Your task to perform on an android device: Check the news Image 0: 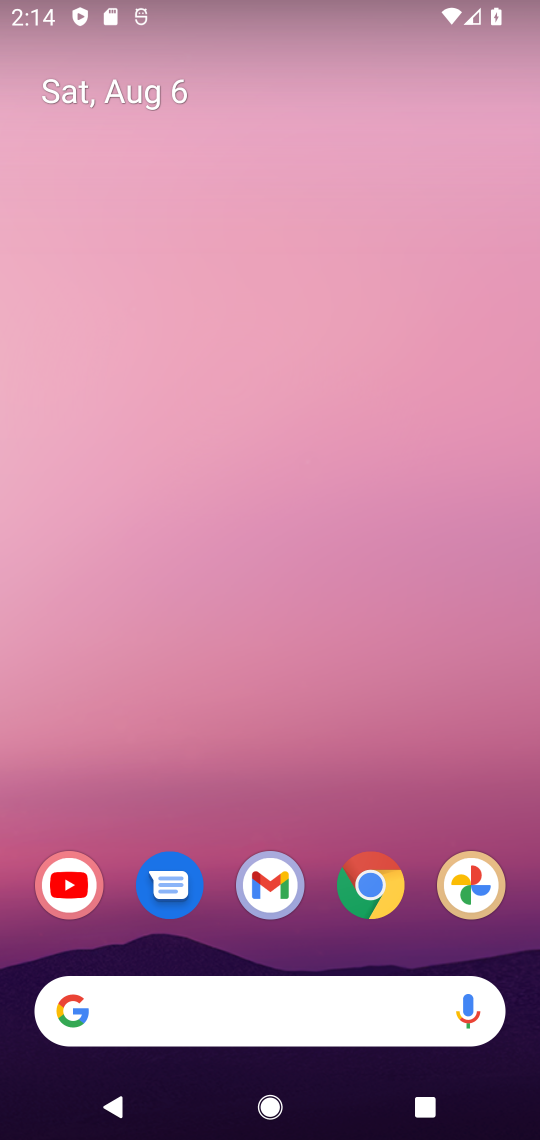
Step 0: drag from (420, 919) to (280, 31)
Your task to perform on an android device: Check the news Image 1: 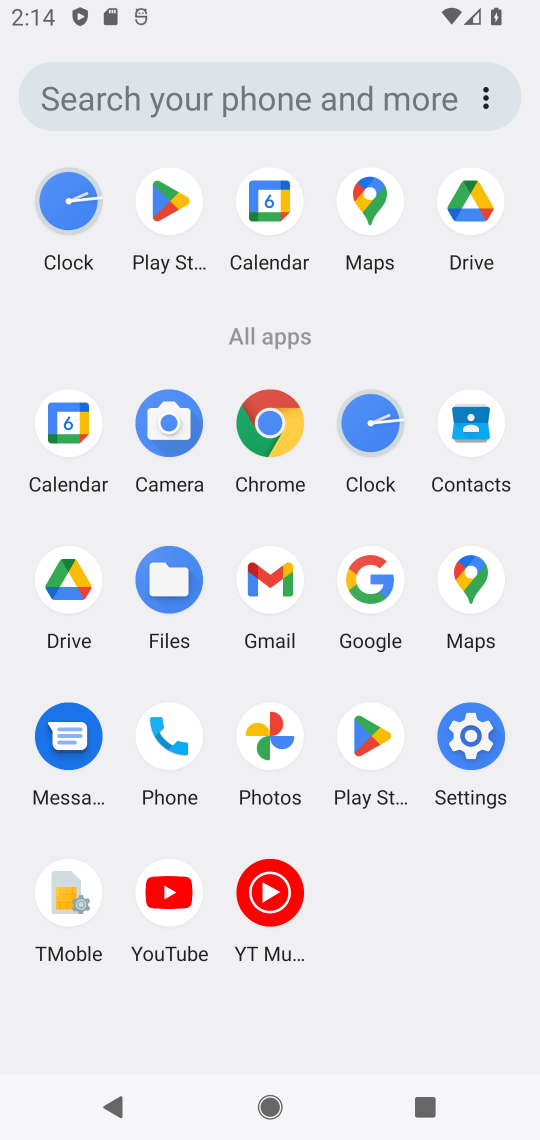
Step 1: click (375, 589)
Your task to perform on an android device: Check the news Image 2: 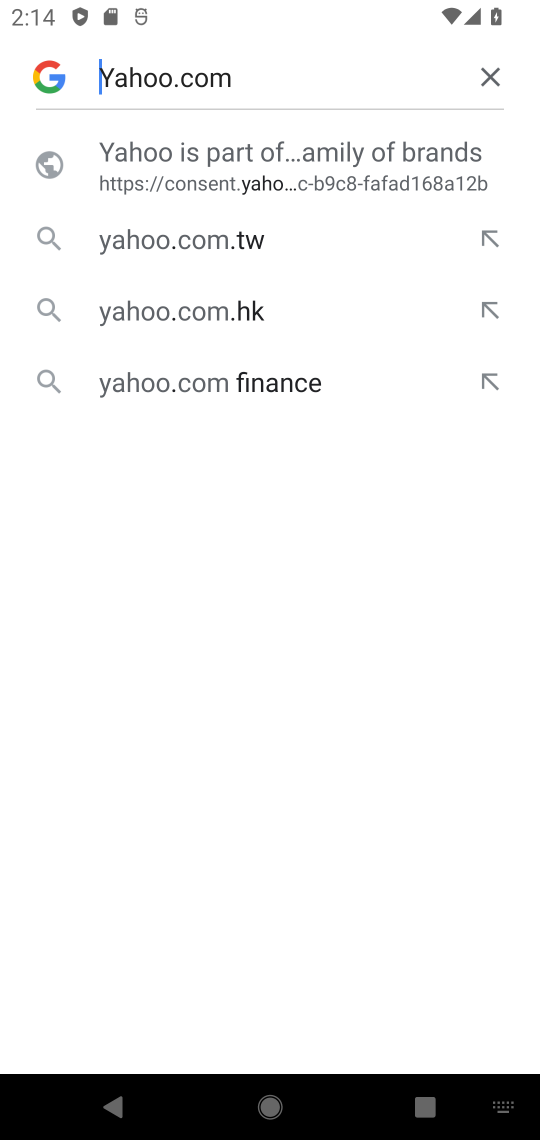
Step 2: press back button
Your task to perform on an android device: Check the news Image 3: 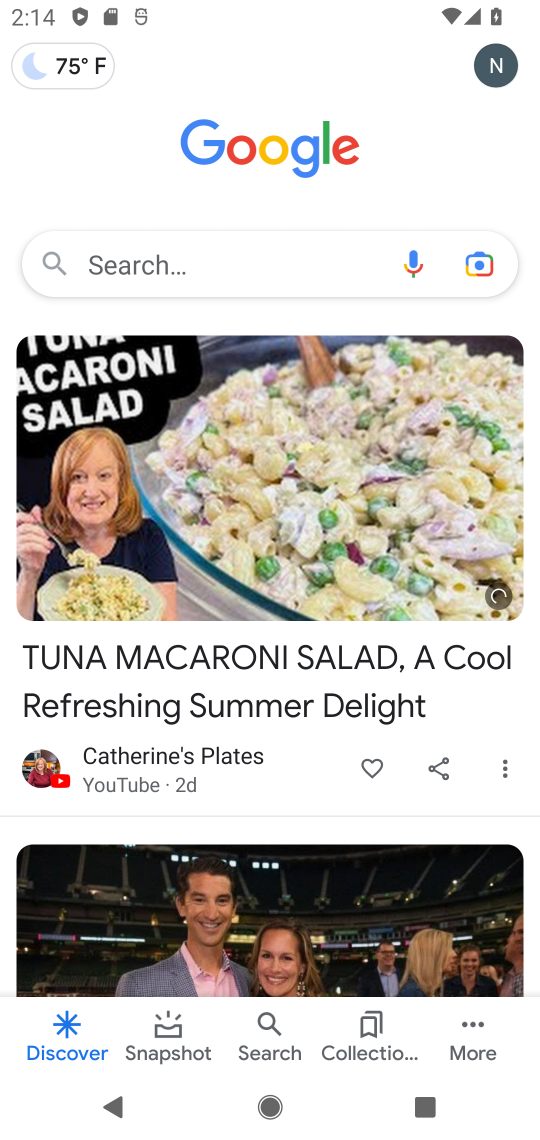
Step 3: click (176, 265)
Your task to perform on an android device: Check the news Image 4: 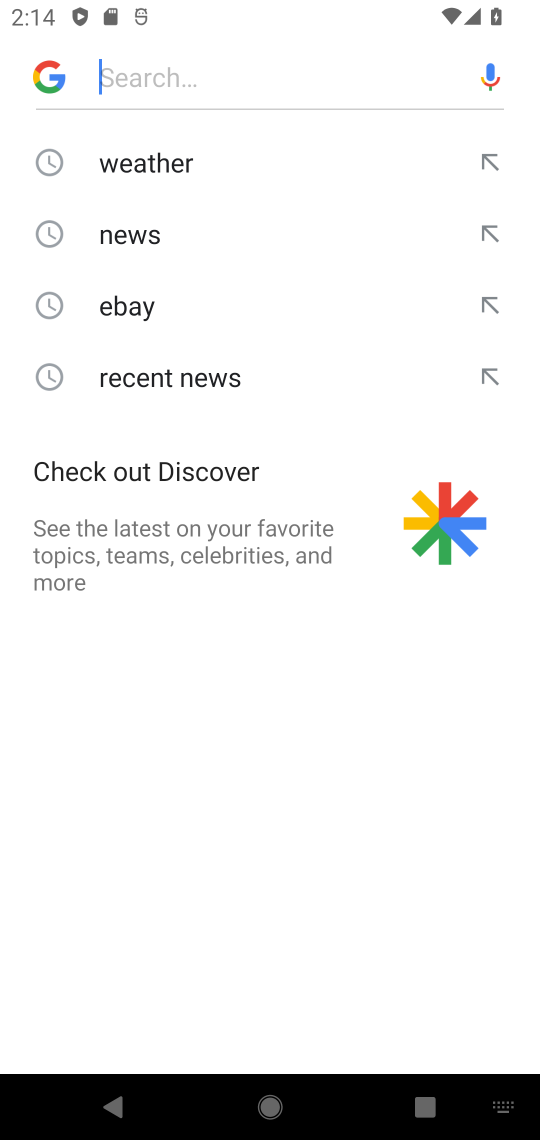
Step 4: click (147, 240)
Your task to perform on an android device: Check the news Image 5: 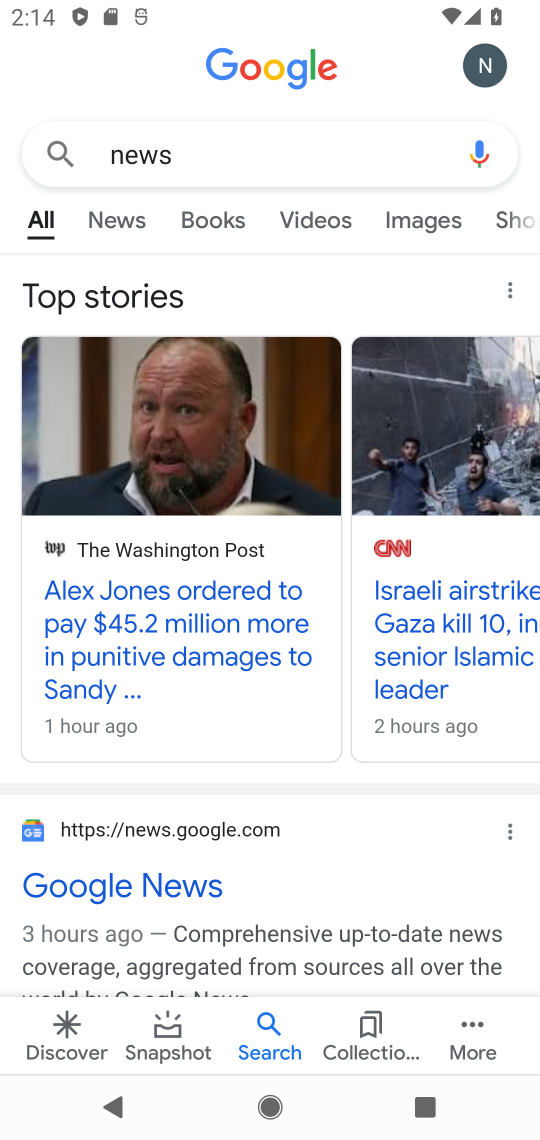
Step 5: task complete